Your task to perform on an android device: open device folders in google photos Image 0: 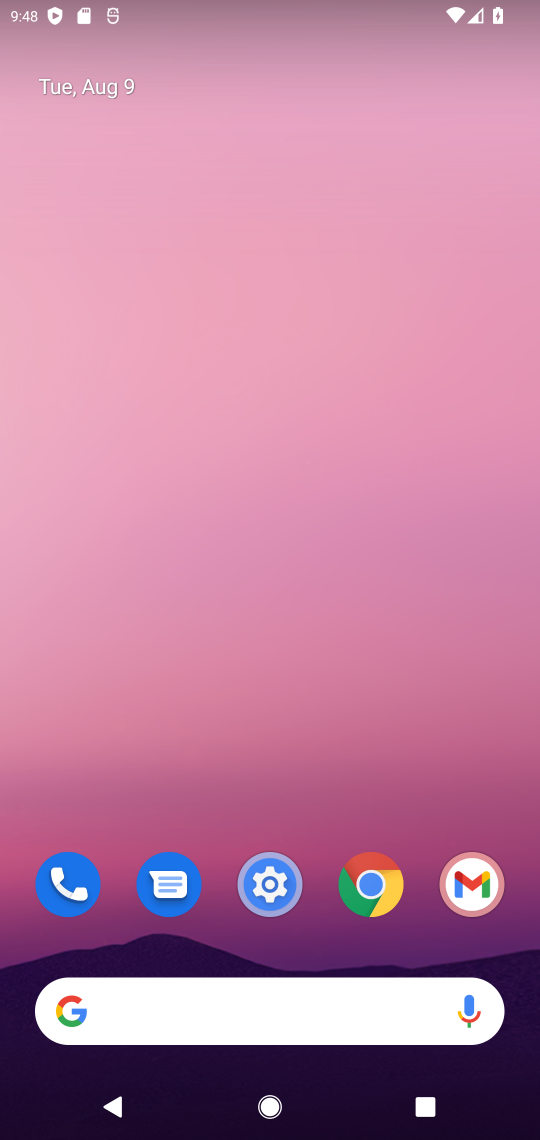
Step 0: drag from (259, 996) to (356, 204)
Your task to perform on an android device: open device folders in google photos Image 1: 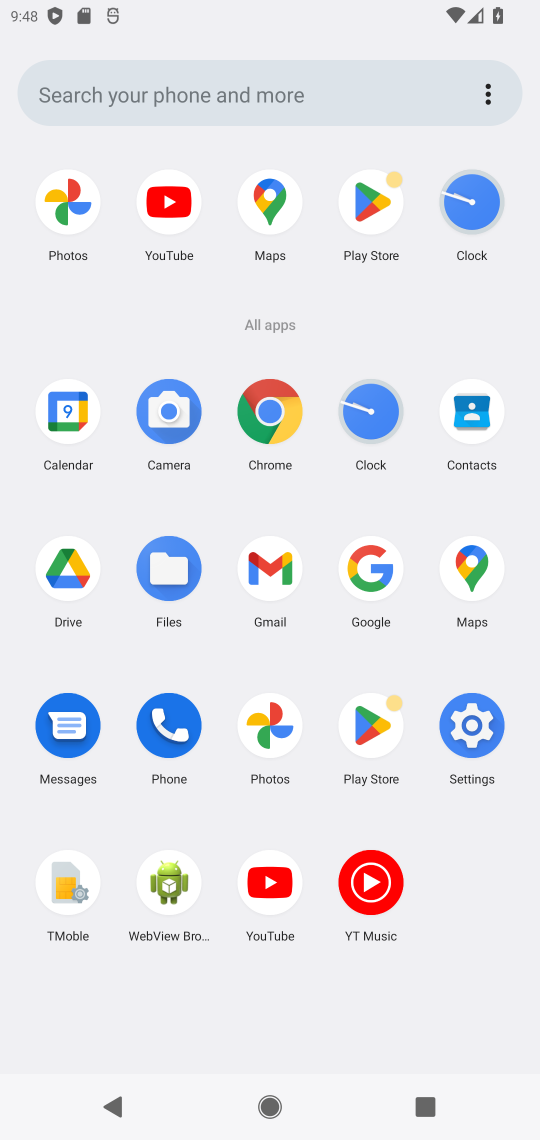
Step 1: click (269, 722)
Your task to perform on an android device: open device folders in google photos Image 2: 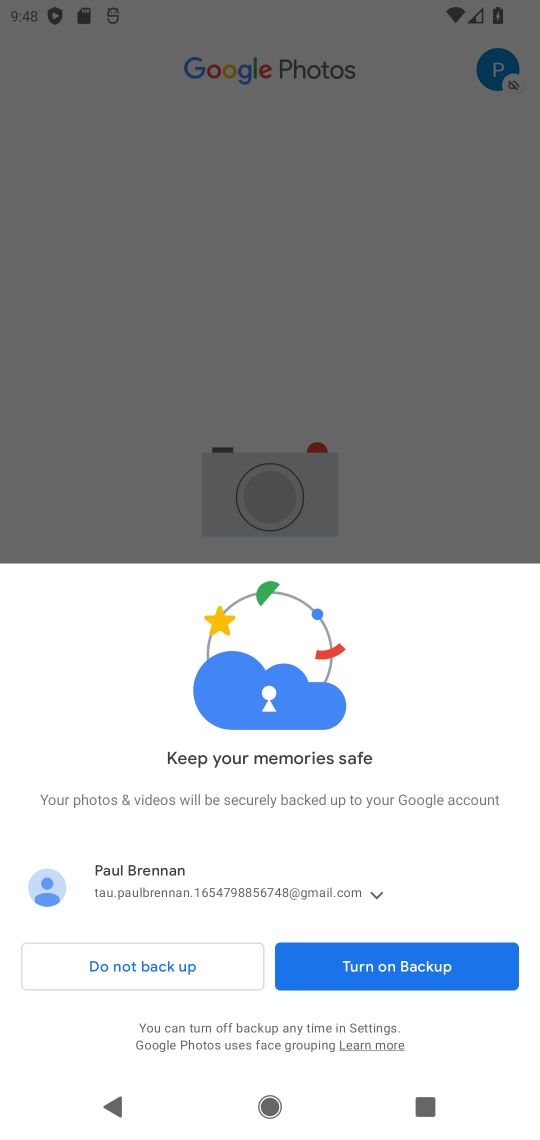
Step 2: click (399, 980)
Your task to perform on an android device: open device folders in google photos Image 3: 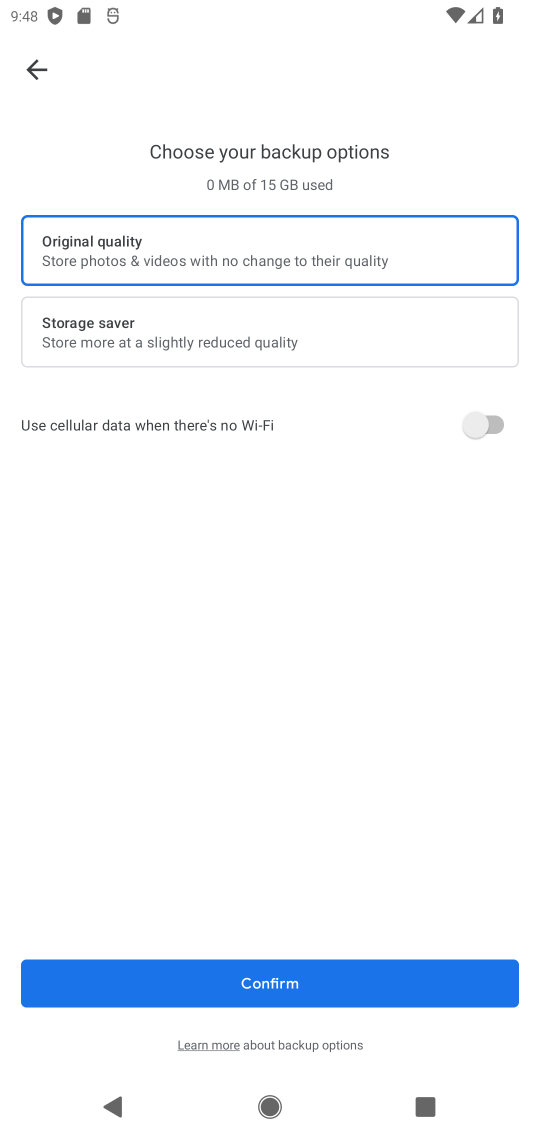
Step 3: click (399, 980)
Your task to perform on an android device: open device folders in google photos Image 4: 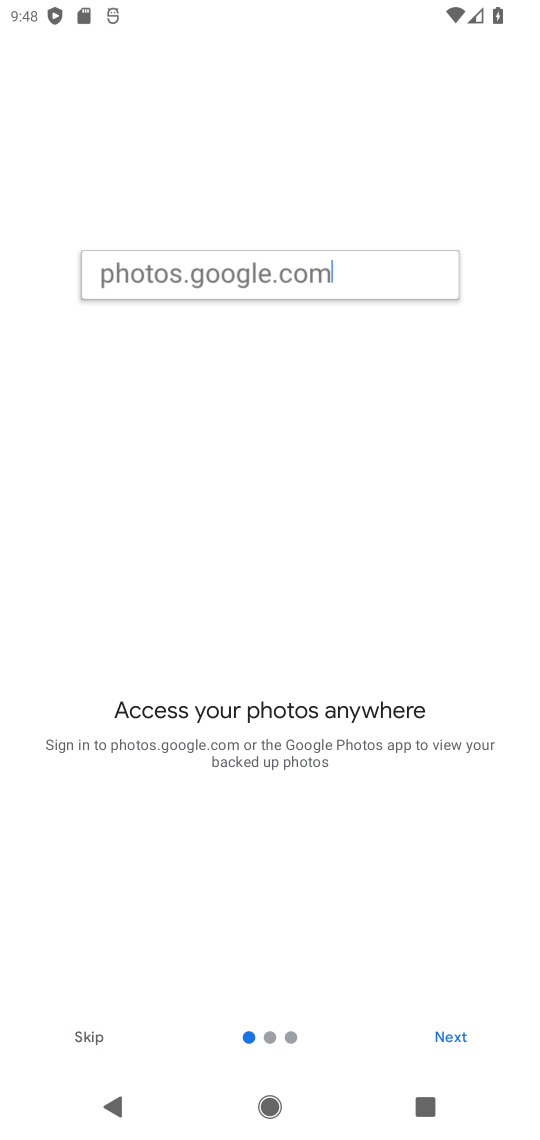
Step 4: click (454, 1032)
Your task to perform on an android device: open device folders in google photos Image 5: 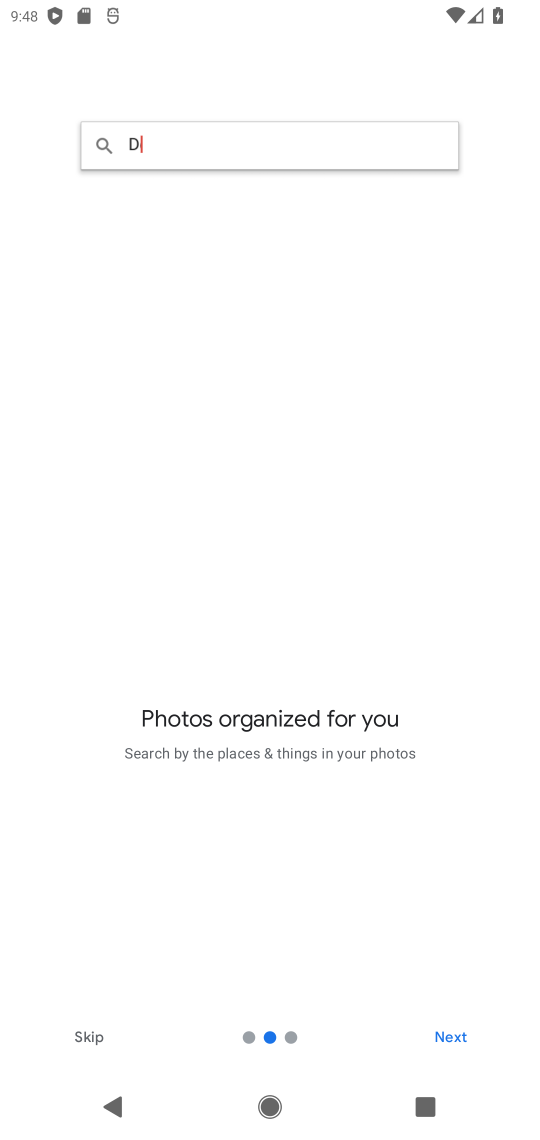
Step 5: click (454, 1032)
Your task to perform on an android device: open device folders in google photos Image 6: 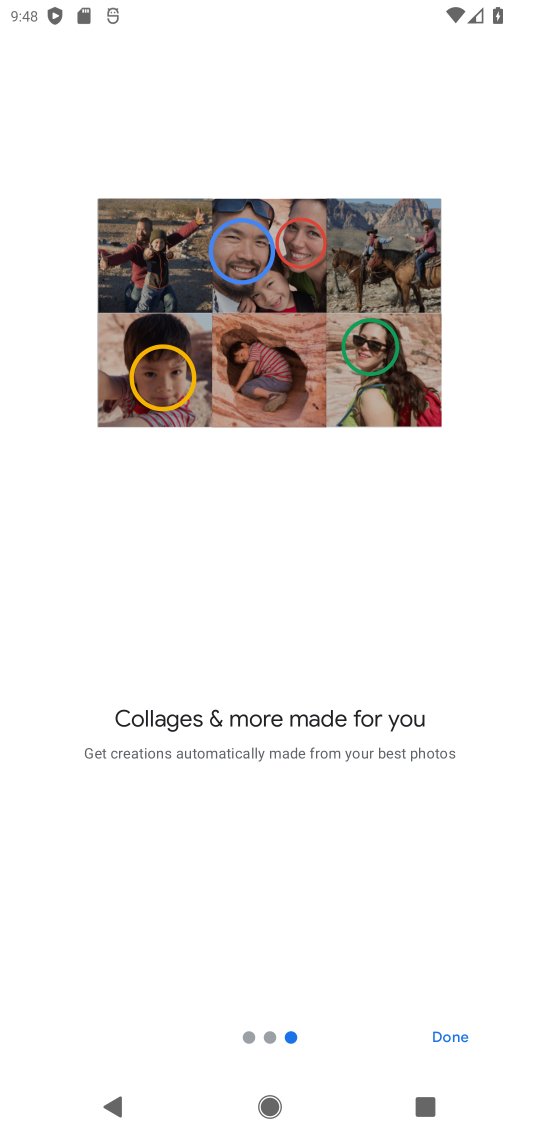
Step 6: click (454, 1032)
Your task to perform on an android device: open device folders in google photos Image 7: 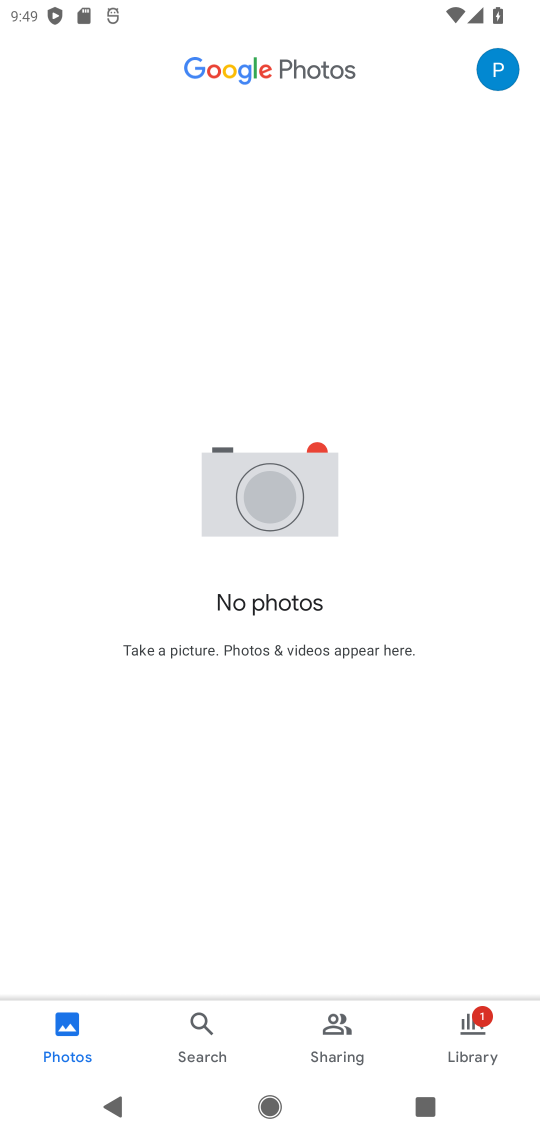
Step 7: click (518, 72)
Your task to perform on an android device: open device folders in google photos Image 8: 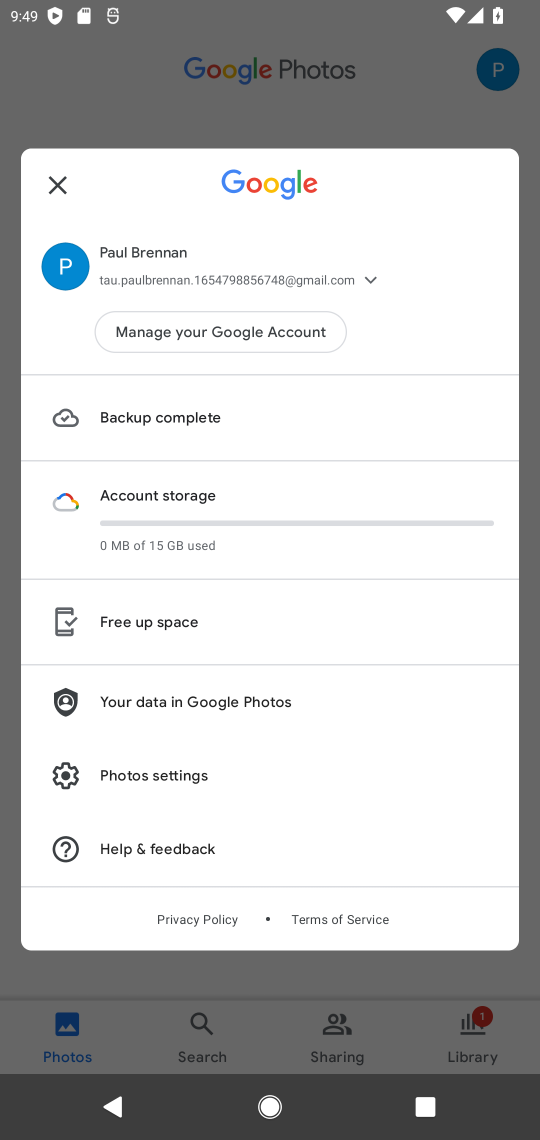
Step 8: click (160, 775)
Your task to perform on an android device: open device folders in google photos Image 9: 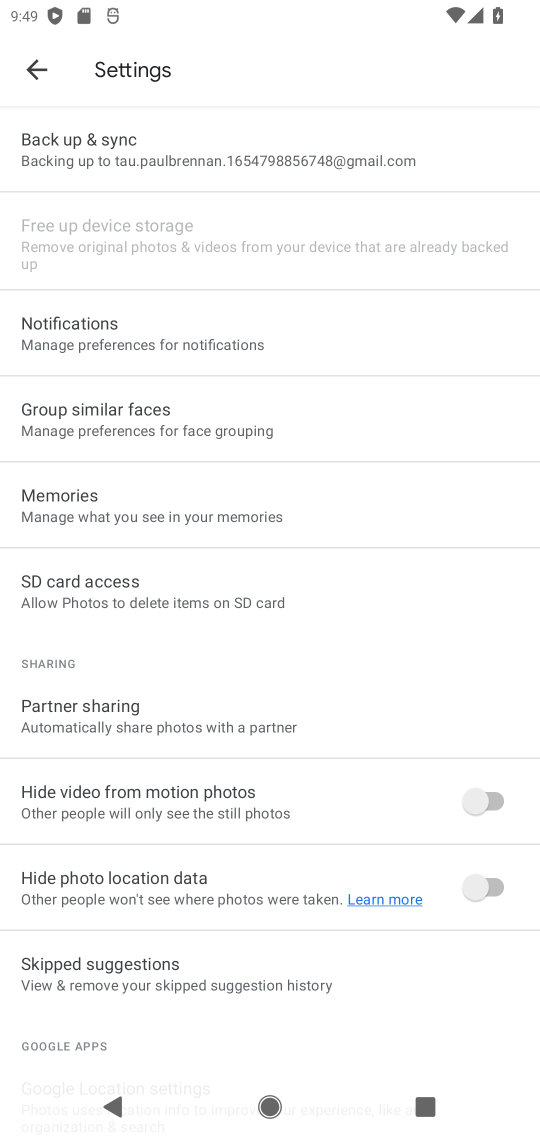
Step 9: task complete